Your task to perform on an android device: How do I get to the nearest Starbucks? Image 0: 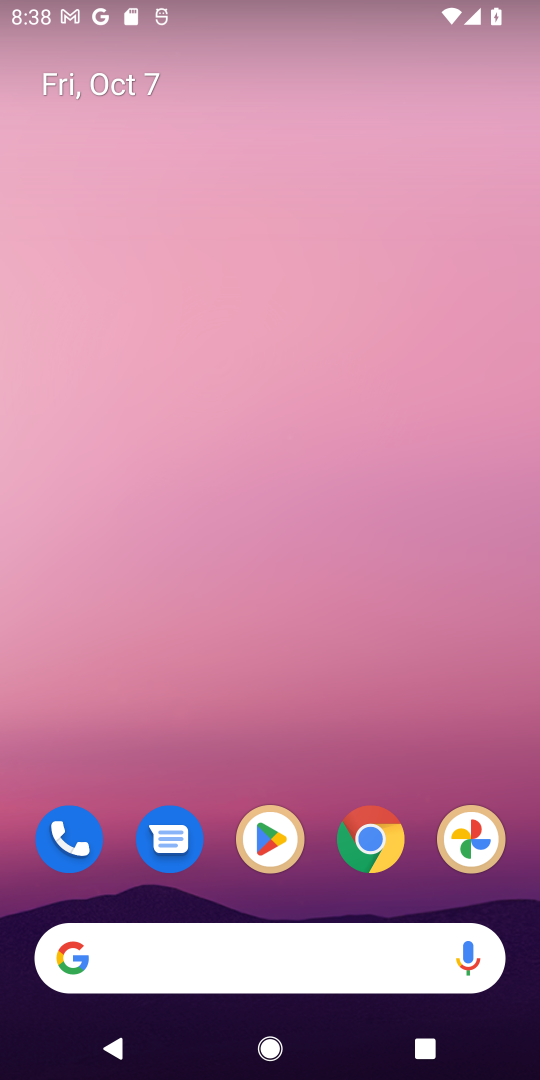
Step 0: click (376, 841)
Your task to perform on an android device: How do I get to the nearest Starbucks? Image 1: 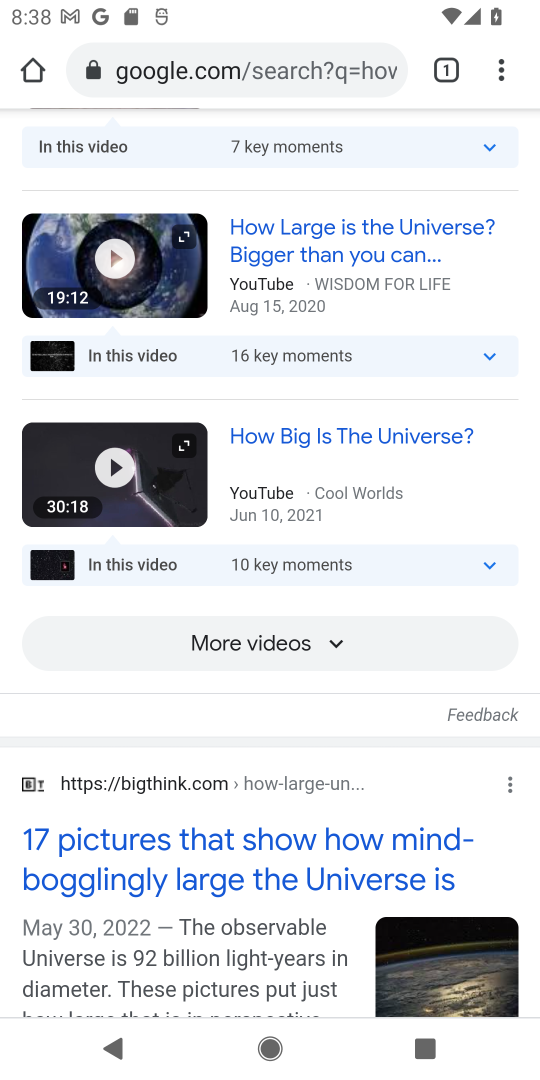
Step 1: click (255, 73)
Your task to perform on an android device: How do I get to the nearest Starbucks? Image 2: 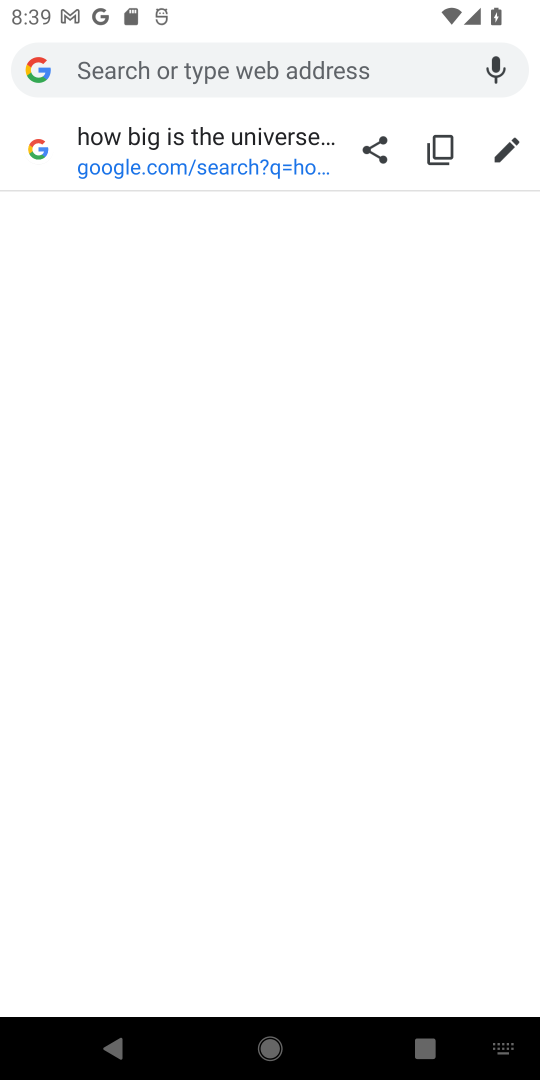
Step 2: type "nearest starbucks"
Your task to perform on an android device: How do I get to the nearest Starbucks? Image 3: 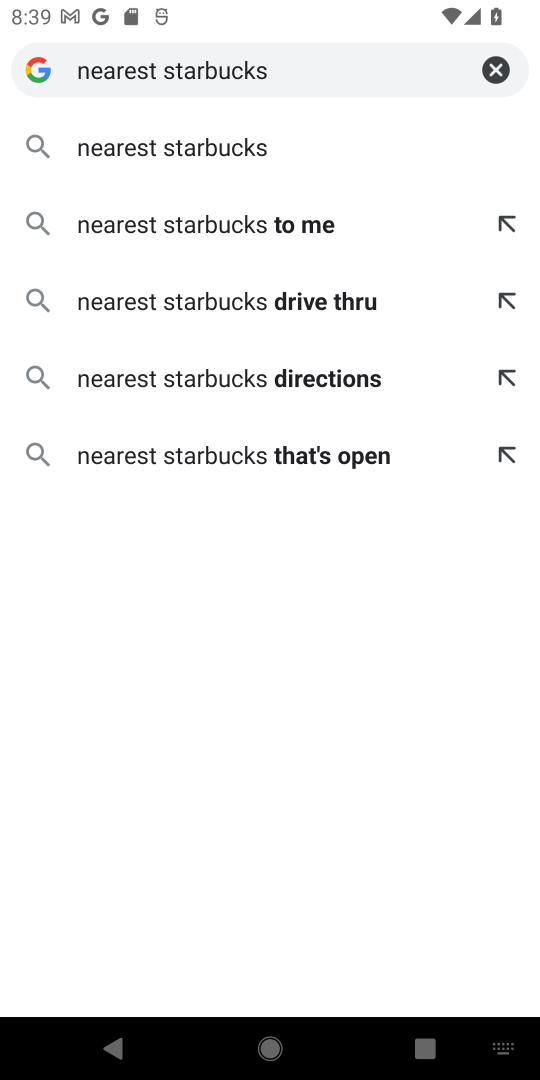
Step 3: click (232, 146)
Your task to perform on an android device: How do I get to the nearest Starbucks? Image 4: 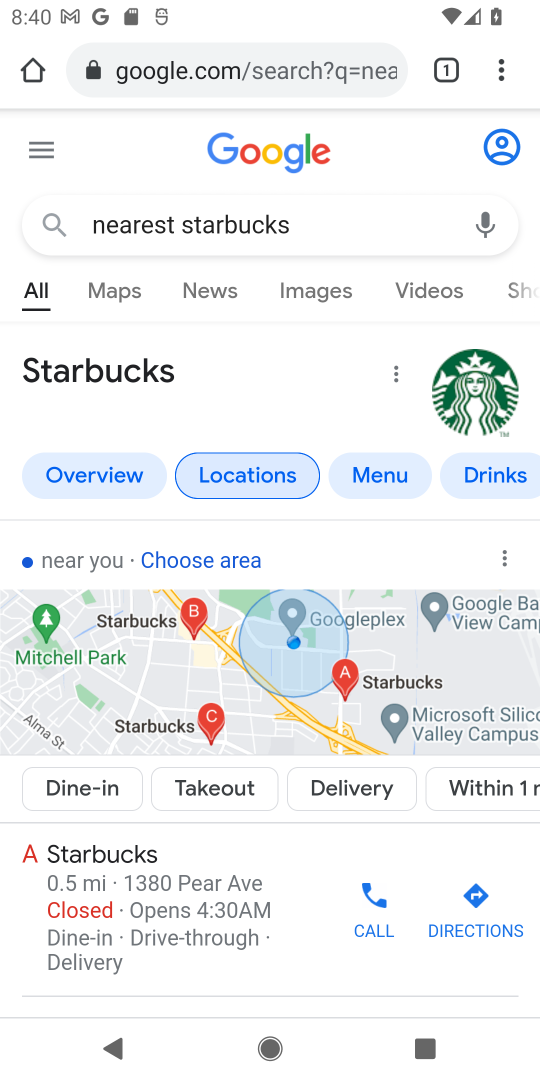
Step 4: task complete